Your task to perform on an android device: Open Google Chrome and click the shortcut for Amazon.com Image 0: 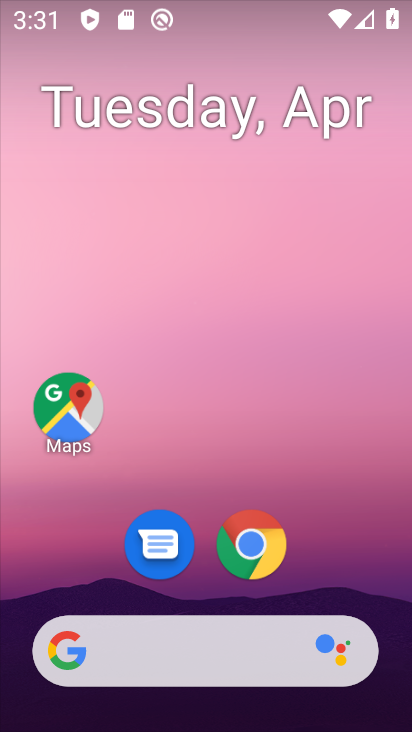
Step 0: click (258, 560)
Your task to perform on an android device: Open Google Chrome and click the shortcut for Amazon.com Image 1: 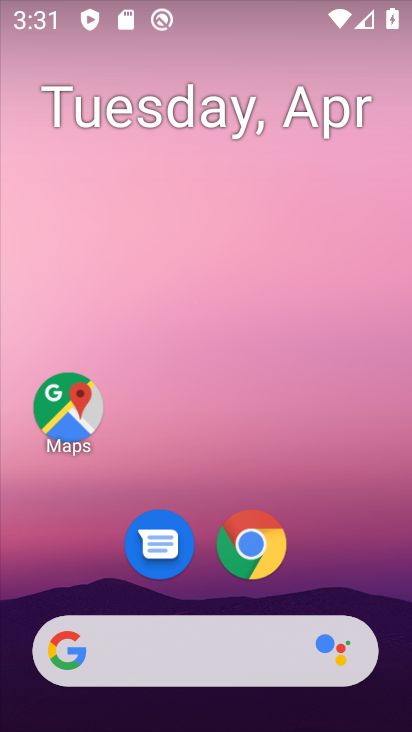
Step 1: click (262, 556)
Your task to perform on an android device: Open Google Chrome and click the shortcut for Amazon.com Image 2: 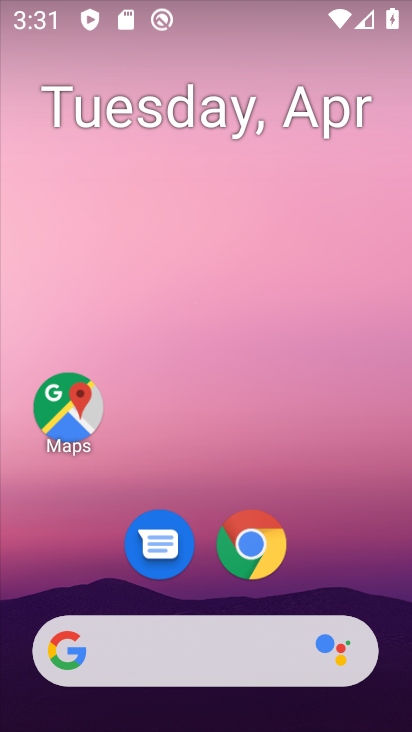
Step 2: click (267, 530)
Your task to perform on an android device: Open Google Chrome and click the shortcut for Amazon.com Image 3: 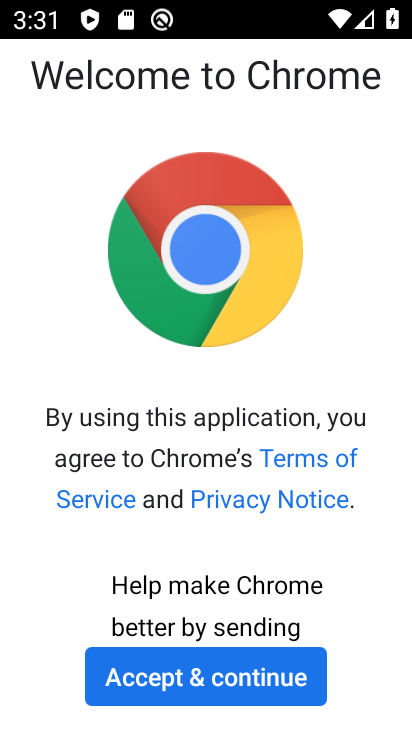
Step 3: click (179, 671)
Your task to perform on an android device: Open Google Chrome and click the shortcut for Amazon.com Image 4: 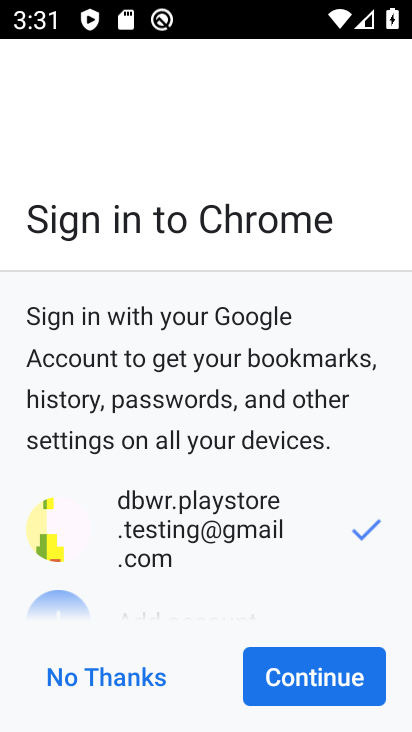
Step 4: click (296, 686)
Your task to perform on an android device: Open Google Chrome and click the shortcut for Amazon.com Image 5: 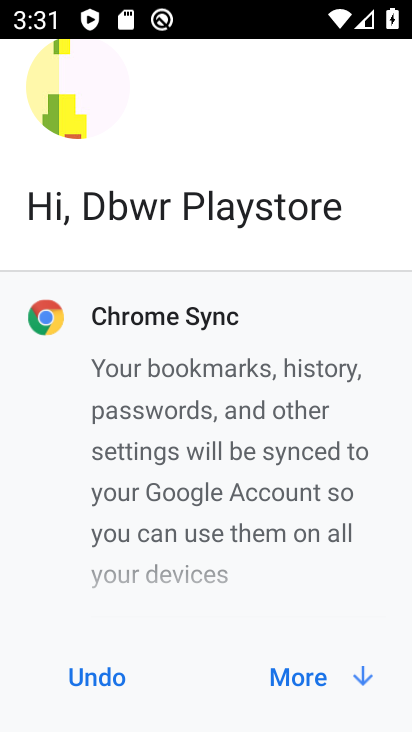
Step 5: click (296, 686)
Your task to perform on an android device: Open Google Chrome and click the shortcut for Amazon.com Image 6: 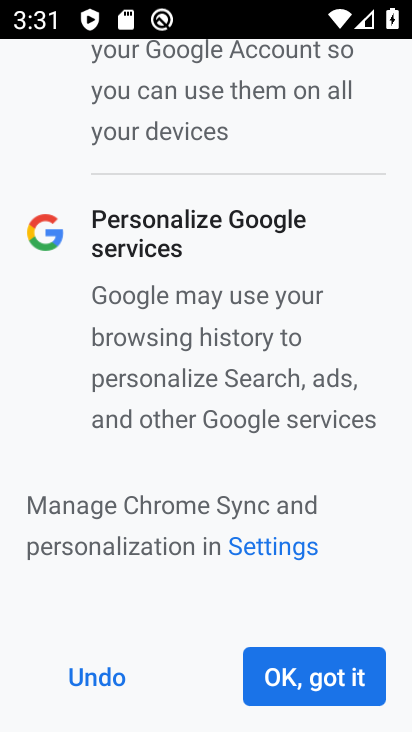
Step 6: click (296, 686)
Your task to perform on an android device: Open Google Chrome and click the shortcut for Amazon.com Image 7: 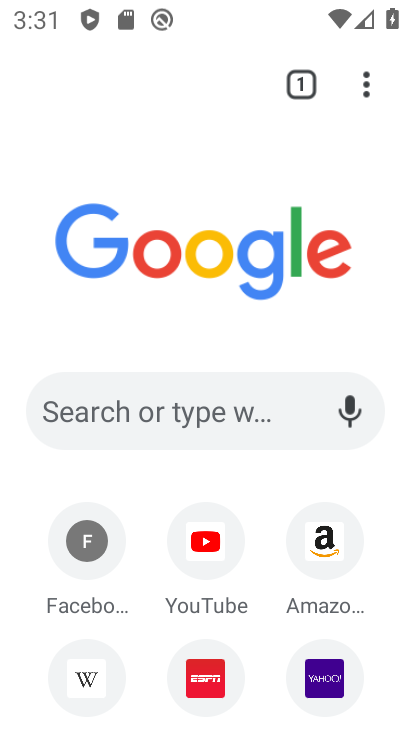
Step 7: click (327, 555)
Your task to perform on an android device: Open Google Chrome and click the shortcut for Amazon.com Image 8: 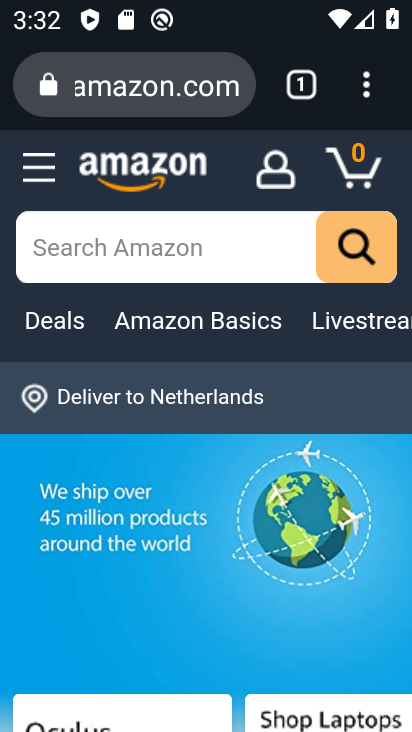
Step 8: task complete